Your task to perform on an android device: Find coffee shops on Maps Image 0: 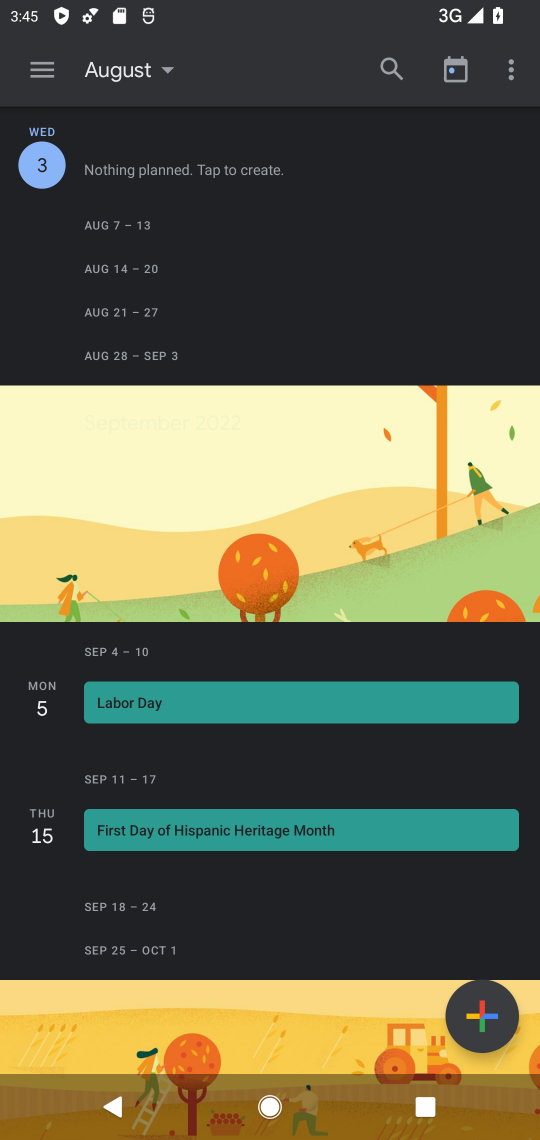
Step 0: press home button
Your task to perform on an android device: Find coffee shops on Maps Image 1: 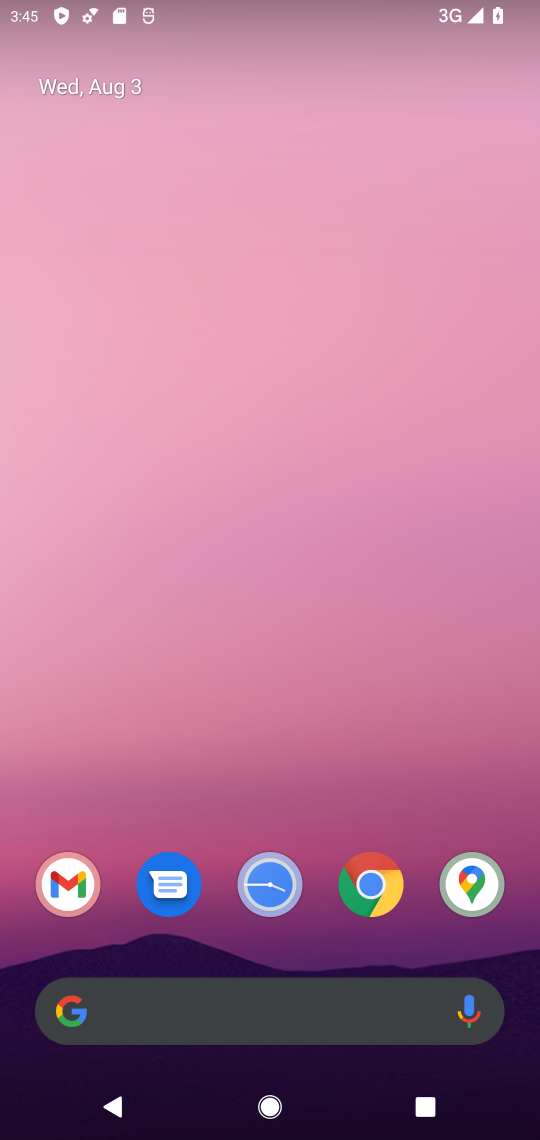
Step 1: click (470, 896)
Your task to perform on an android device: Find coffee shops on Maps Image 2: 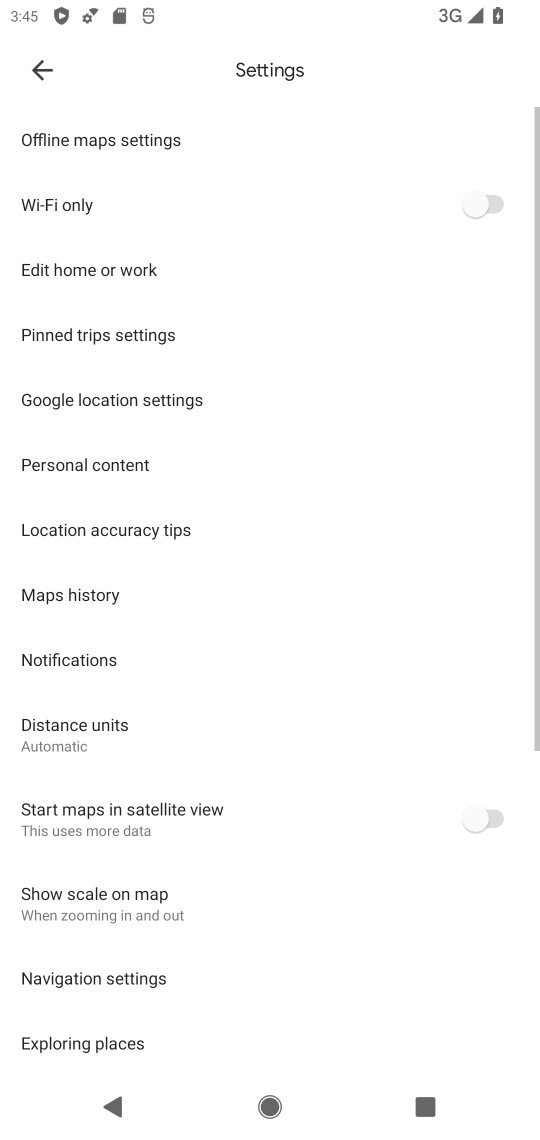
Step 2: click (79, 77)
Your task to perform on an android device: Find coffee shops on Maps Image 3: 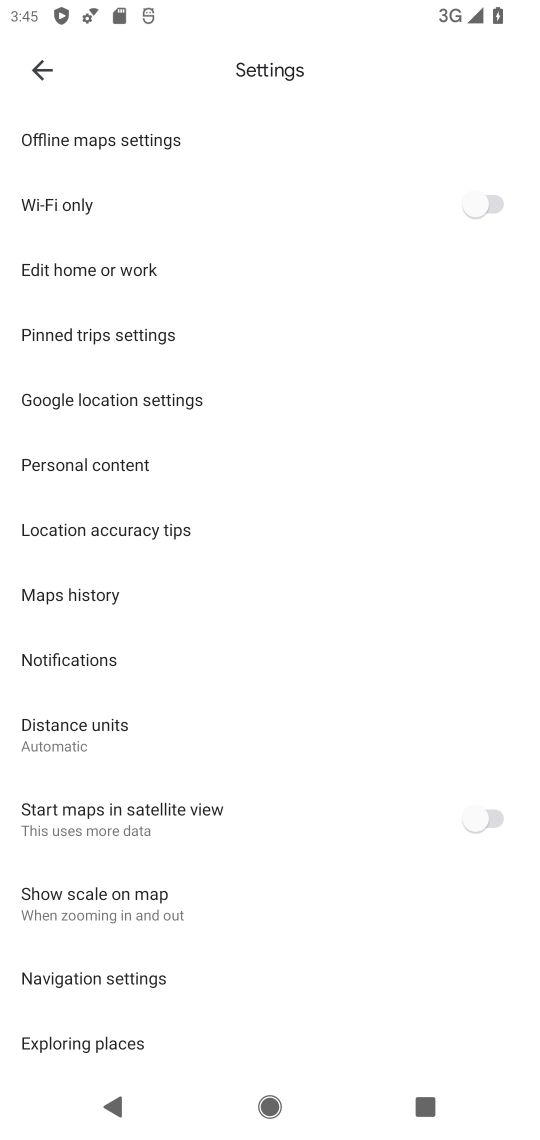
Step 3: click (47, 69)
Your task to perform on an android device: Find coffee shops on Maps Image 4: 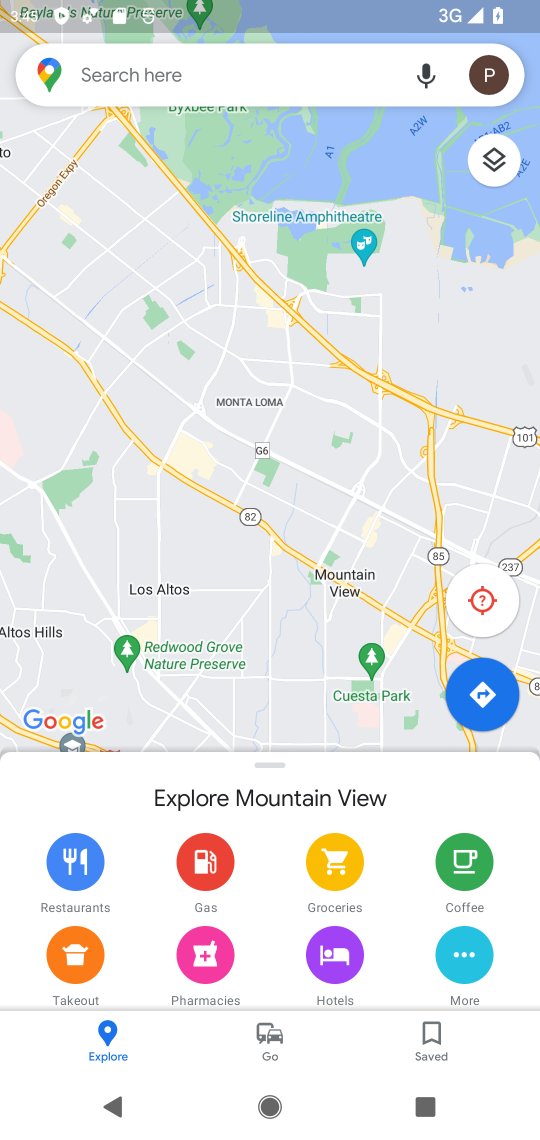
Step 4: click (293, 92)
Your task to perform on an android device: Find coffee shops on Maps Image 5: 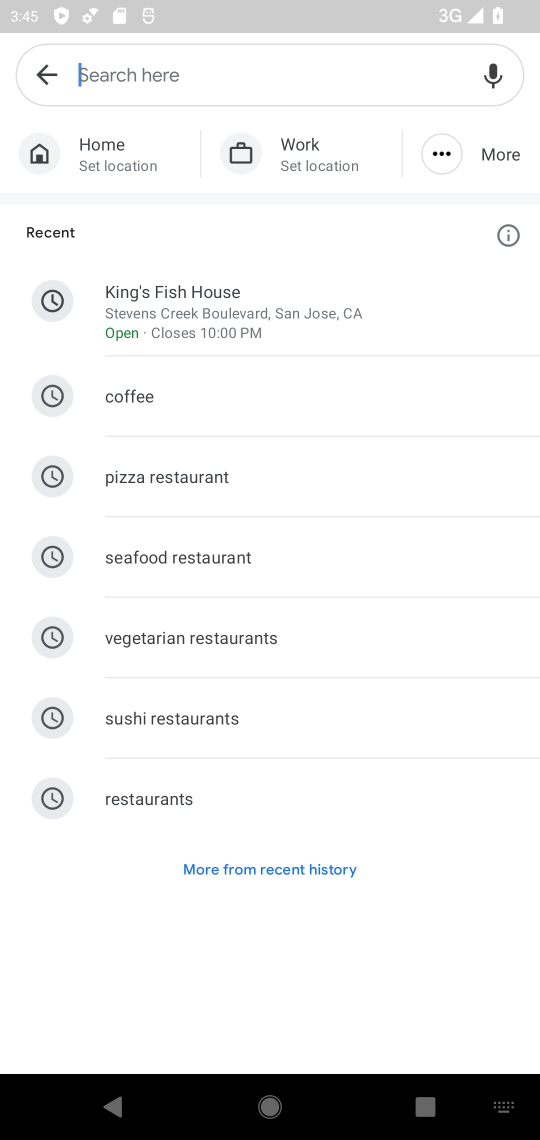
Step 5: click (311, 391)
Your task to perform on an android device: Find coffee shops on Maps Image 6: 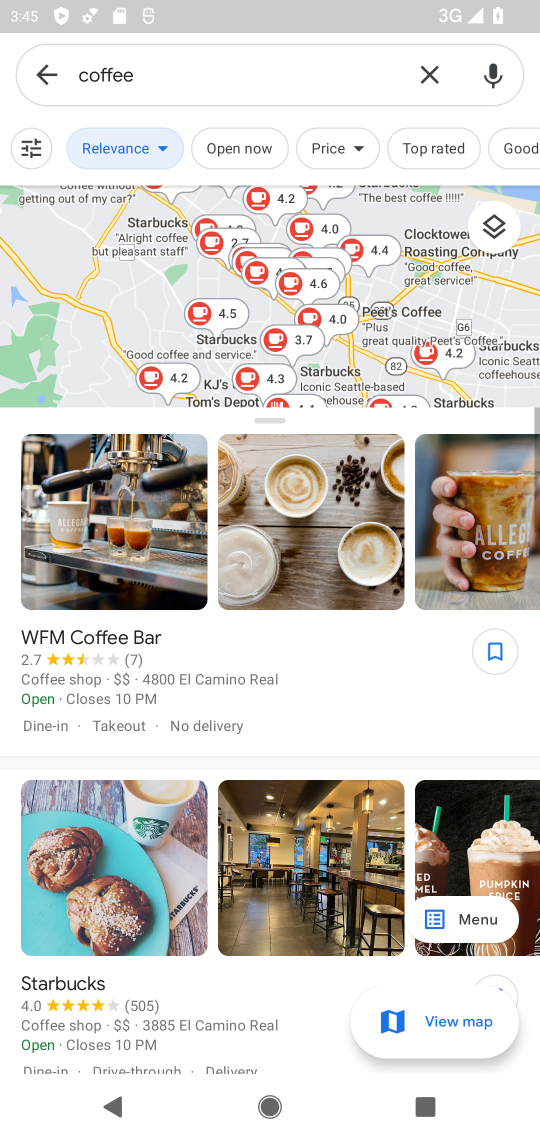
Step 6: task complete